Your task to perform on an android device: open app "Clock" Image 0: 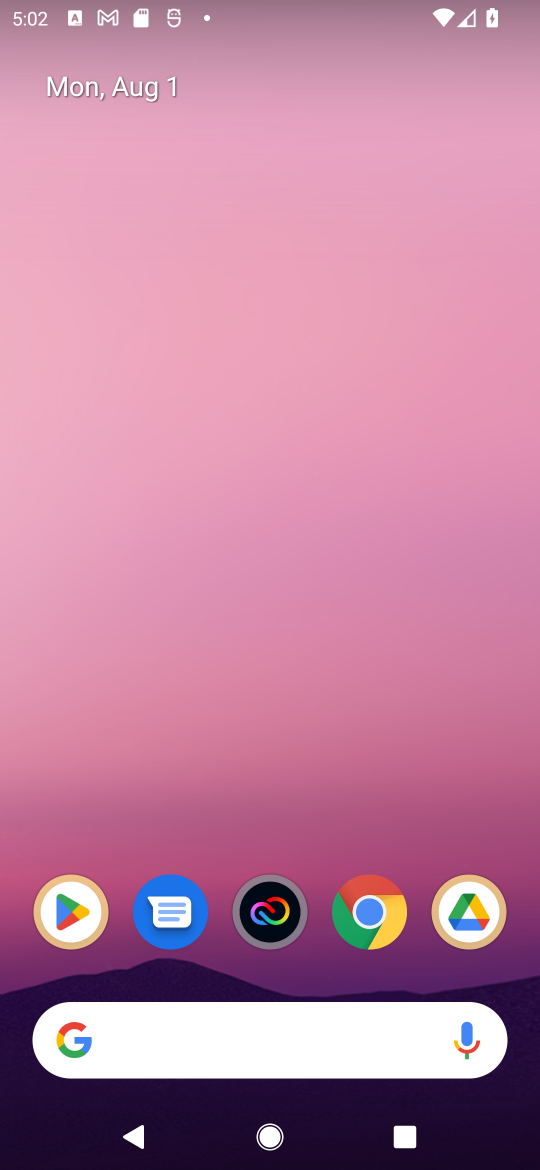
Step 0: click (72, 908)
Your task to perform on an android device: open app "Clock" Image 1: 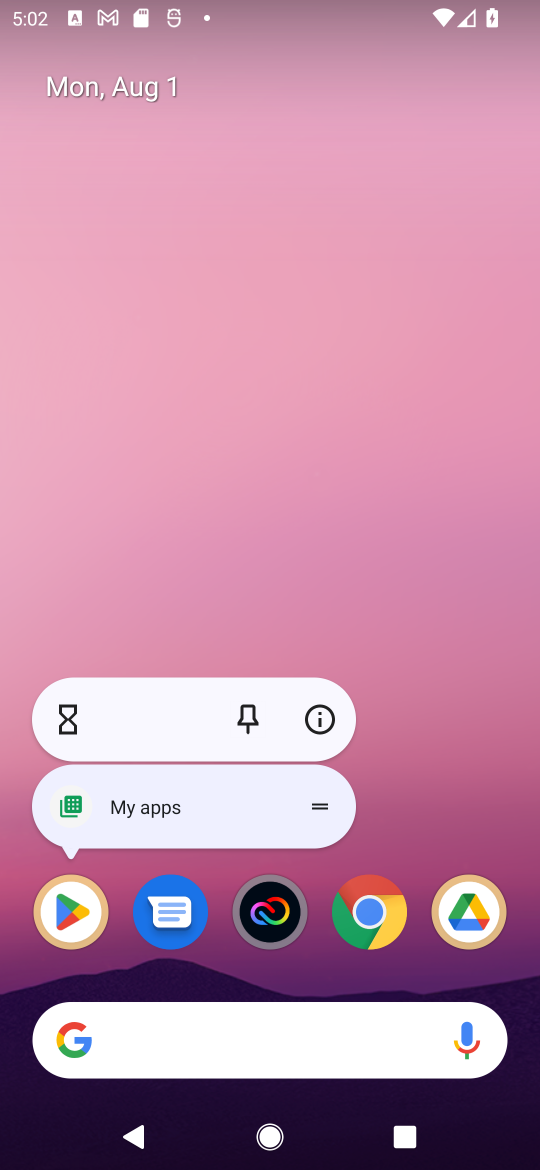
Step 1: click (412, 814)
Your task to perform on an android device: open app "Clock" Image 2: 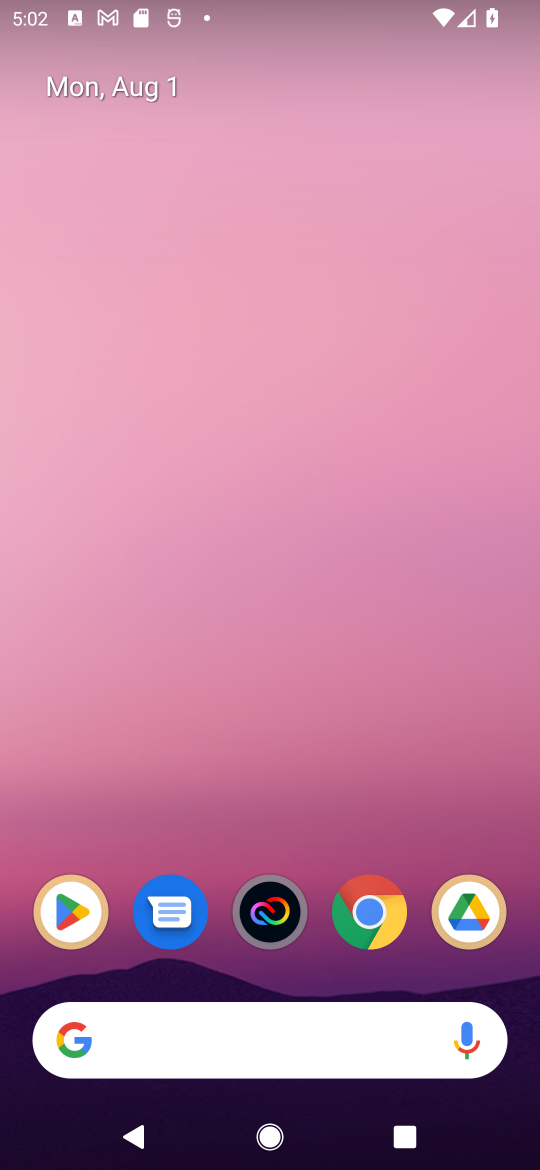
Step 2: drag from (328, 965) to (326, 193)
Your task to perform on an android device: open app "Clock" Image 3: 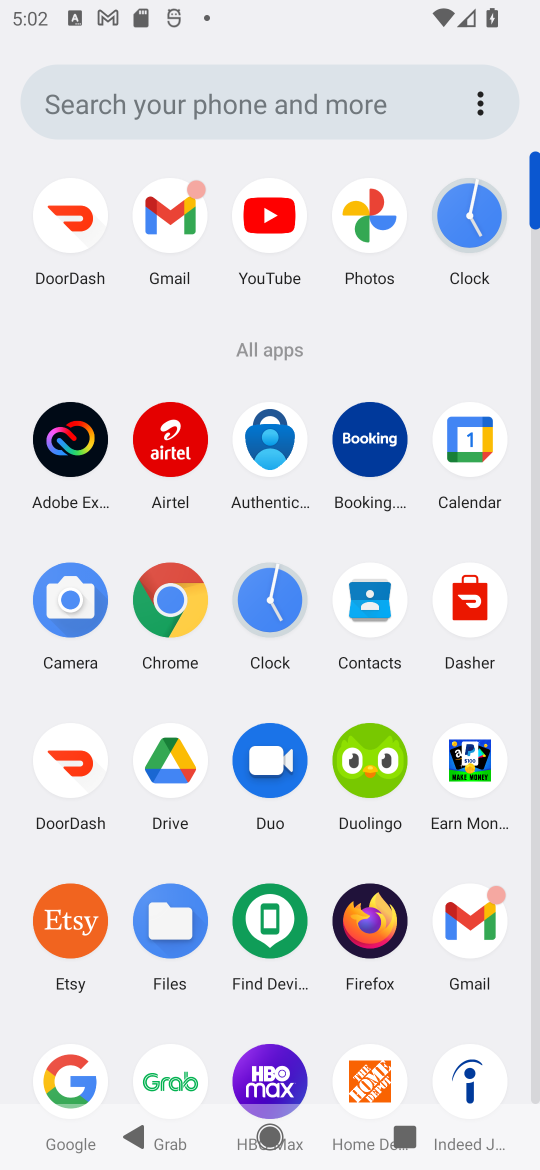
Step 3: click (259, 611)
Your task to perform on an android device: open app "Clock" Image 4: 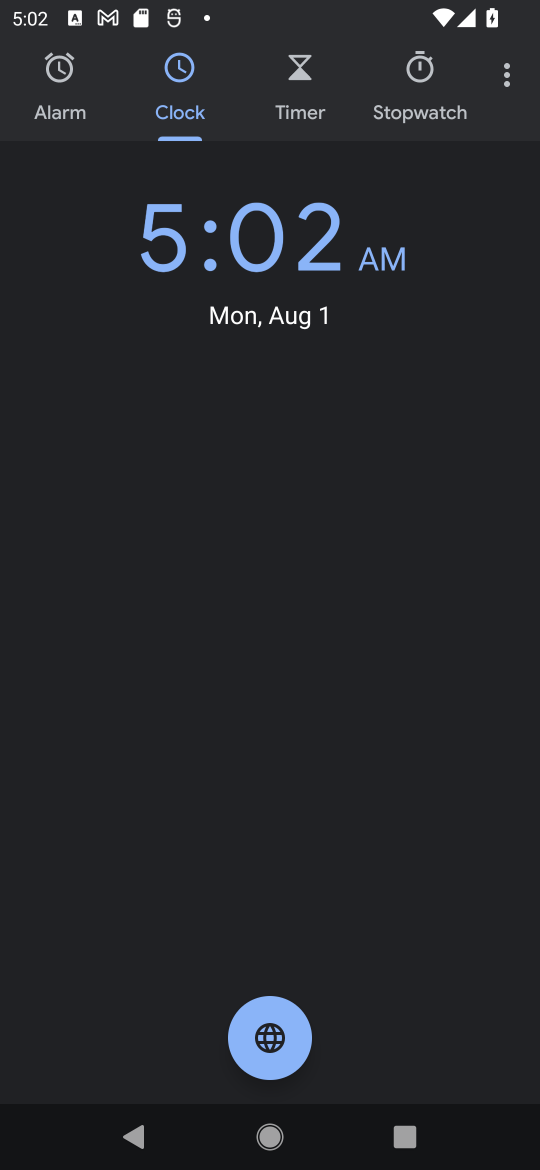
Step 4: task complete